Your task to perform on an android device: toggle notifications settings in the gmail app Image 0: 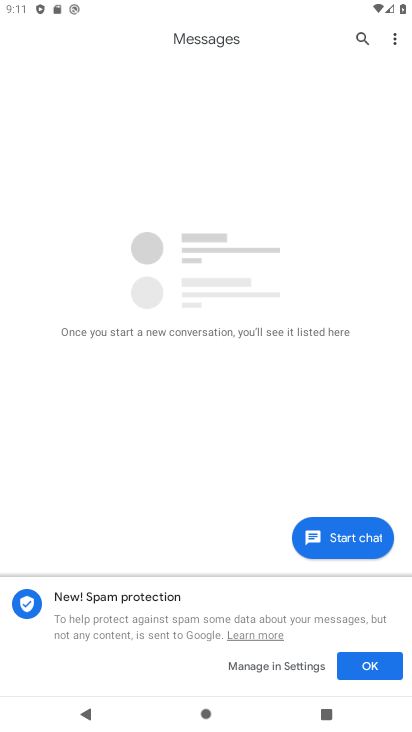
Step 0: press home button
Your task to perform on an android device: toggle notifications settings in the gmail app Image 1: 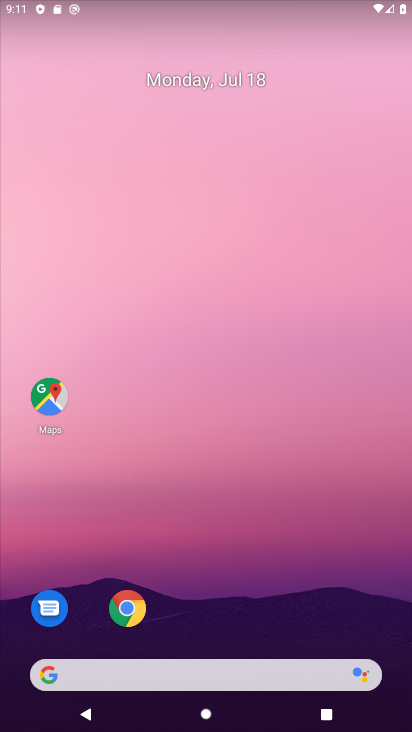
Step 1: drag from (212, 518) to (234, 2)
Your task to perform on an android device: toggle notifications settings in the gmail app Image 2: 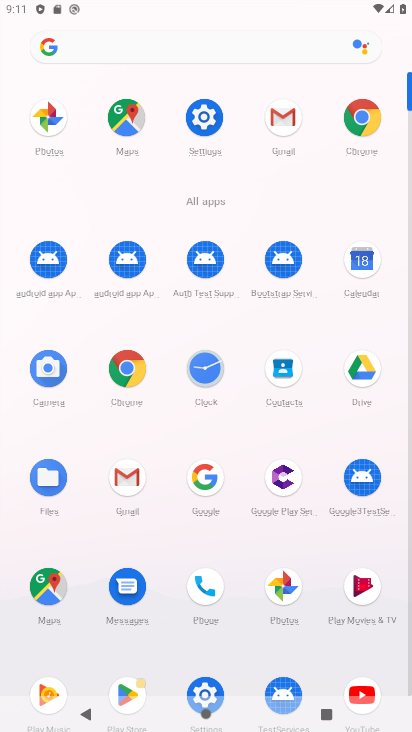
Step 2: click (131, 493)
Your task to perform on an android device: toggle notifications settings in the gmail app Image 3: 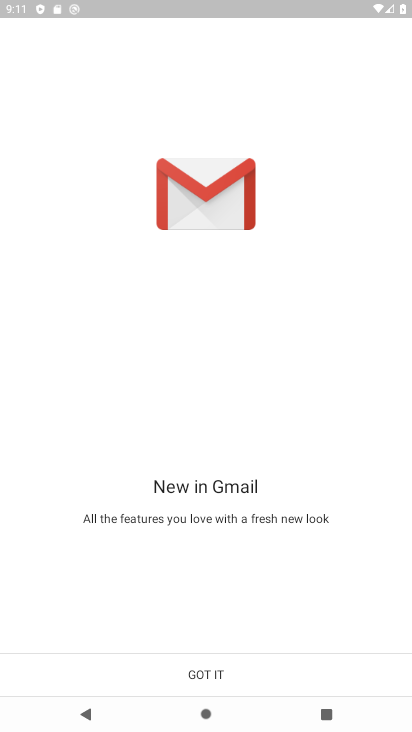
Step 3: click (225, 674)
Your task to perform on an android device: toggle notifications settings in the gmail app Image 4: 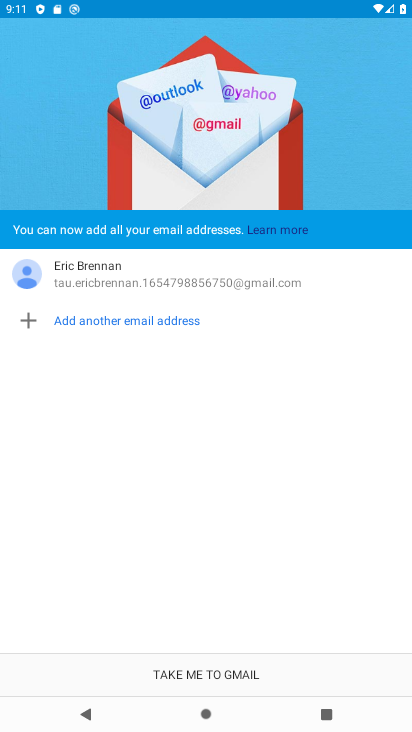
Step 4: click (218, 671)
Your task to perform on an android device: toggle notifications settings in the gmail app Image 5: 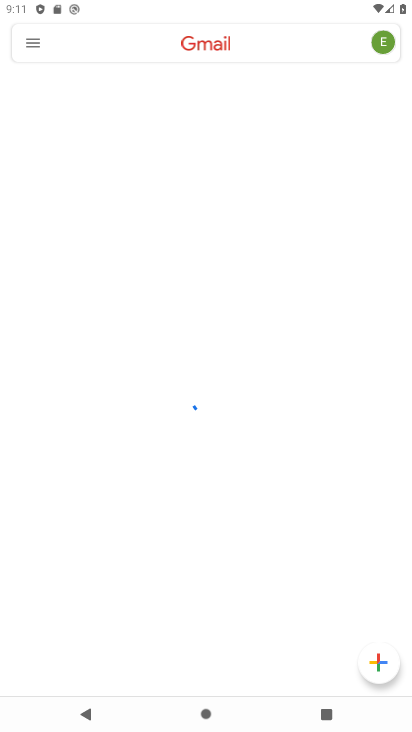
Step 5: click (33, 39)
Your task to perform on an android device: toggle notifications settings in the gmail app Image 6: 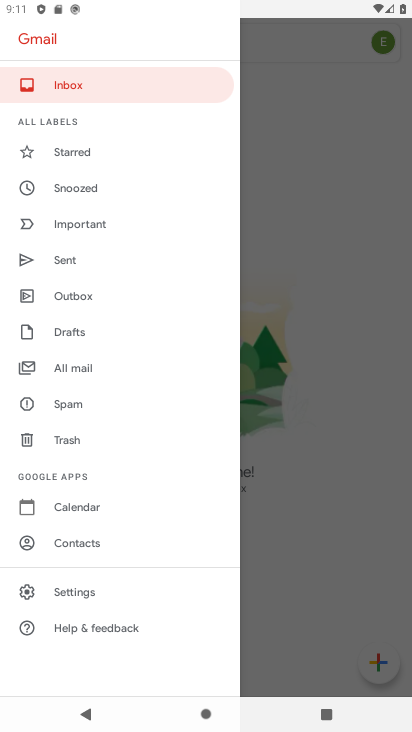
Step 6: click (84, 596)
Your task to perform on an android device: toggle notifications settings in the gmail app Image 7: 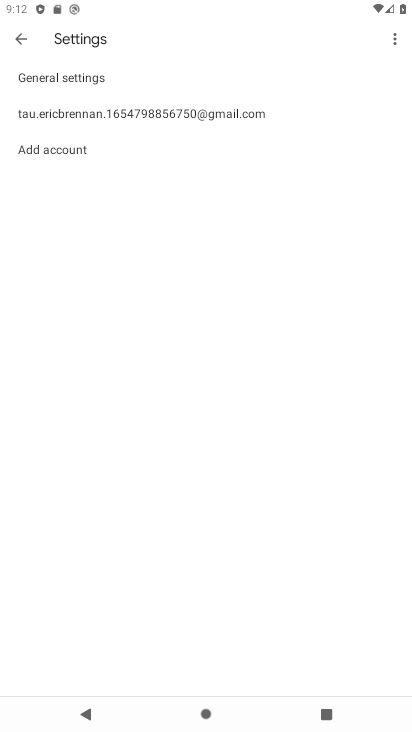
Step 7: click (86, 72)
Your task to perform on an android device: toggle notifications settings in the gmail app Image 8: 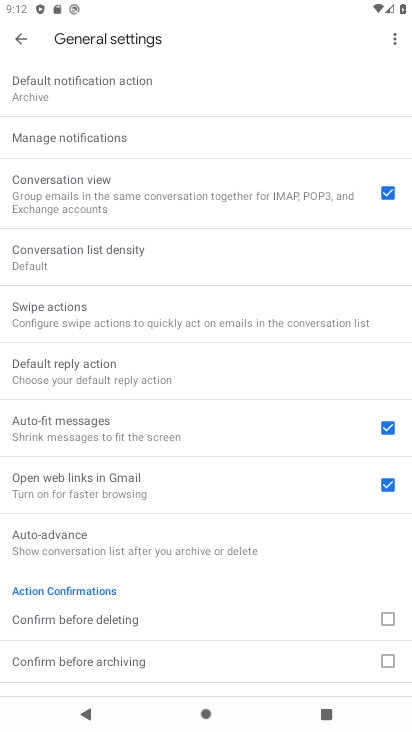
Step 8: click (87, 140)
Your task to perform on an android device: toggle notifications settings in the gmail app Image 9: 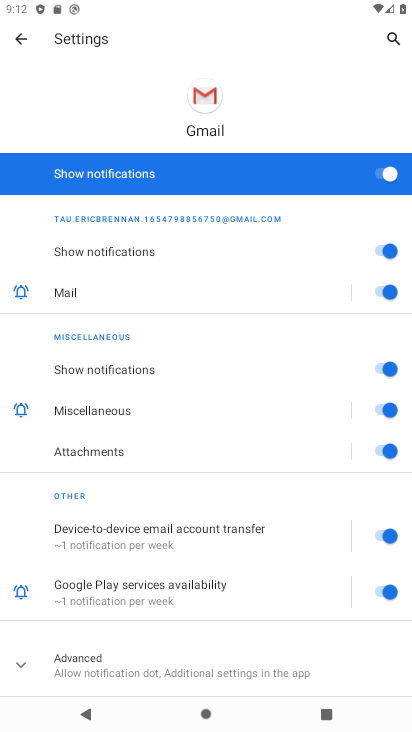
Step 9: click (355, 181)
Your task to perform on an android device: toggle notifications settings in the gmail app Image 10: 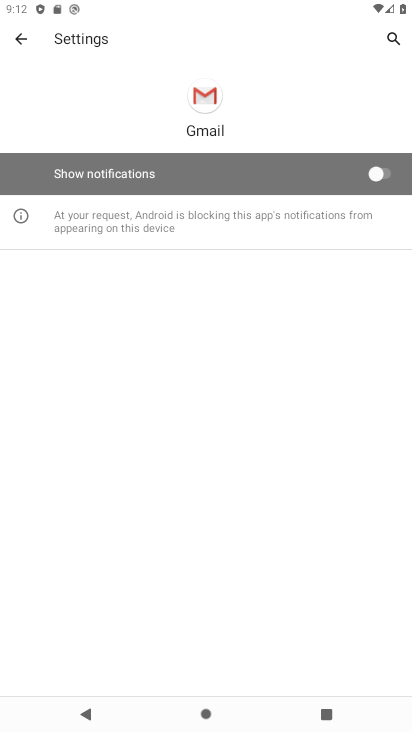
Step 10: task complete